Your task to perform on an android device: Is it going to rain today? Image 0: 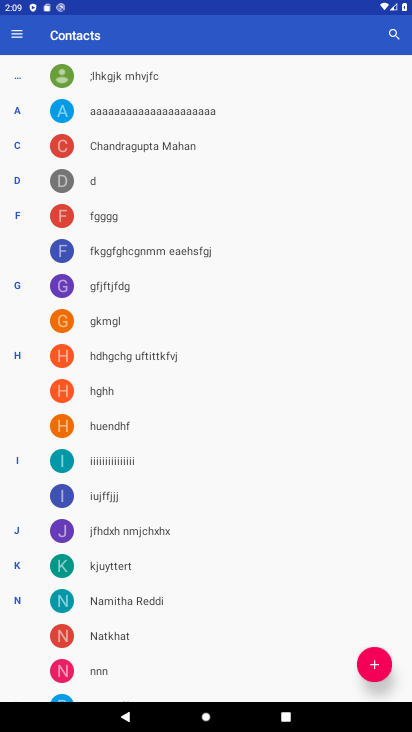
Step 0: press home button
Your task to perform on an android device: Is it going to rain today? Image 1: 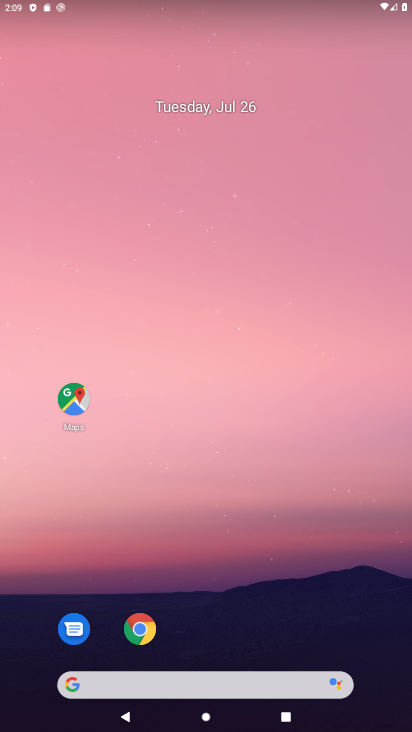
Step 1: click (214, 690)
Your task to perform on an android device: Is it going to rain today? Image 2: 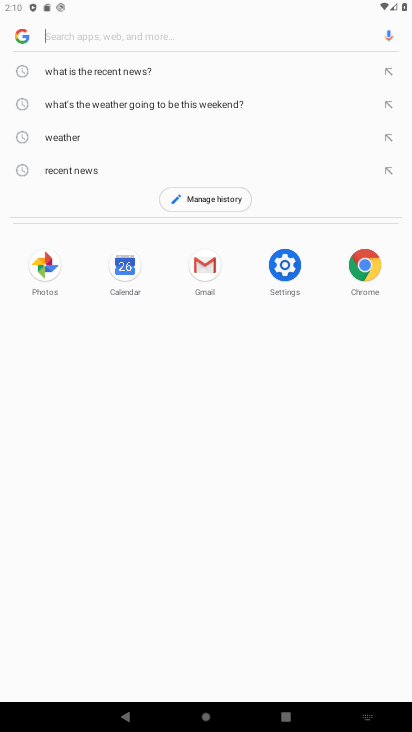
Step 2: type "is it going to rain today"
Your task to perform on an android device: Is it going to rain today? Image 3: 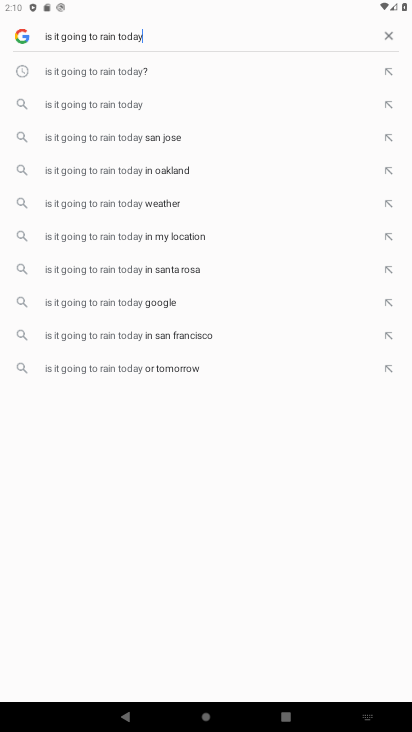
Step 3: click (105, 75)
Your task to perform on an android device: Is it going to rain today? Image 4: 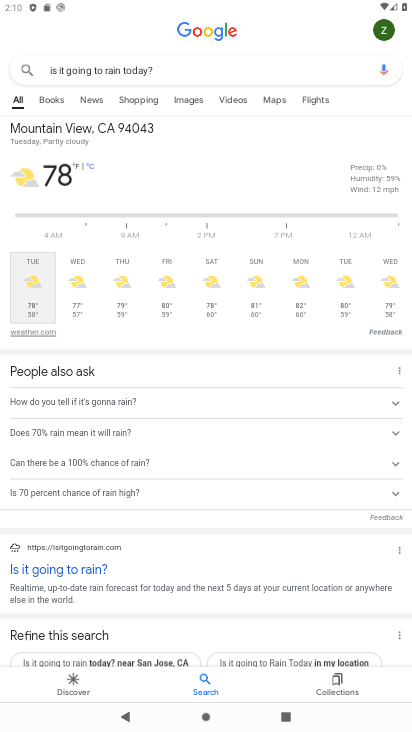
Step 4: task complete